Your task to perform on an android device: turn on the 24-hour format for clock Image 0: 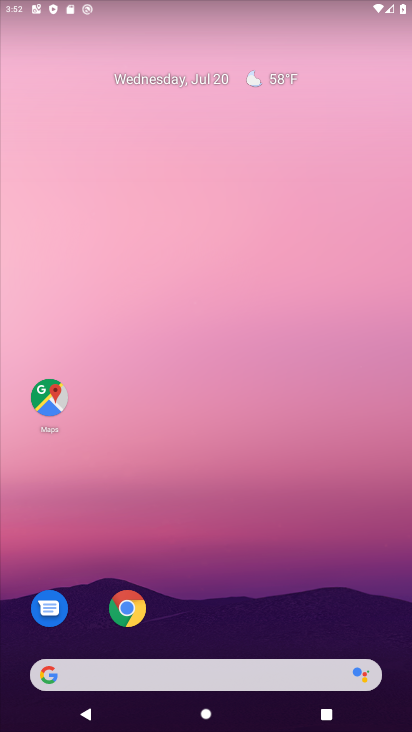
Step 0: drag from (279, 640) to (269, 204)
Your task to perform on an android device: turn on the 24-hour format for clock Image 1: 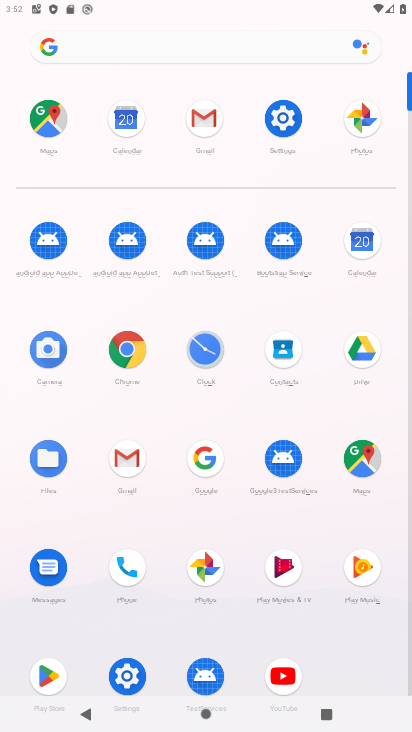
Step 1: click (301, 134)
Your task to perform on an android device: turn on the 24-hour format for clock Image 2: 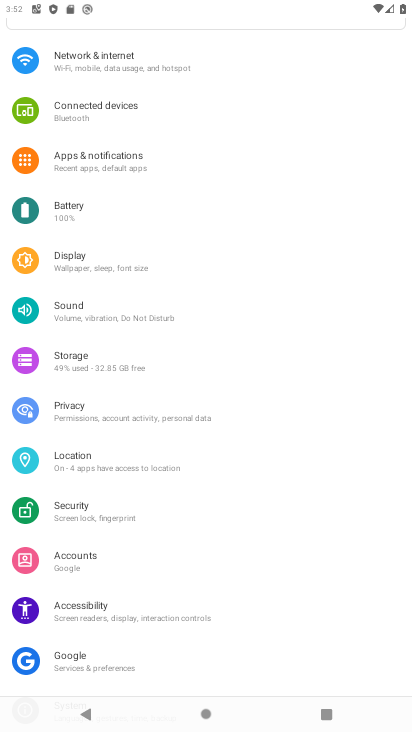
Step 2: press back button
Your task to perform on an android device: turn on the 24-hour format for clock Image 3: 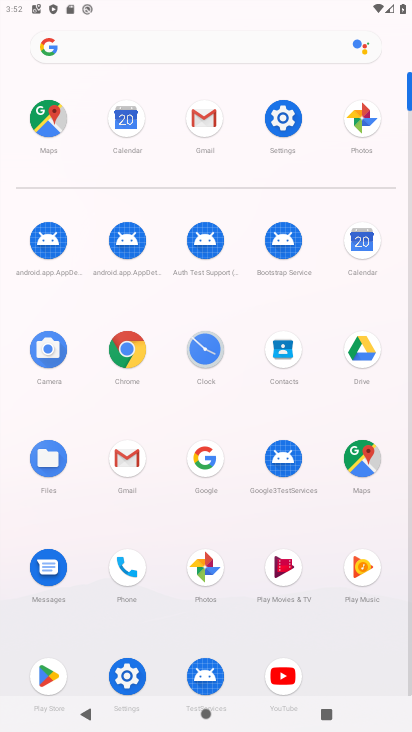
Step 3: click (204, 368)
Your task to perform on an android device: turn on the 24-hour format for clock Image 4: 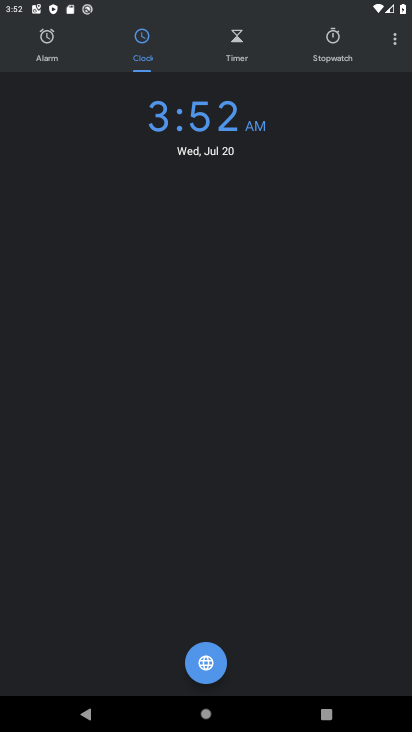
Step 4: click (398, 35)
Your task to perform on an android device: turn on the 24-hour format for clock Image 5: 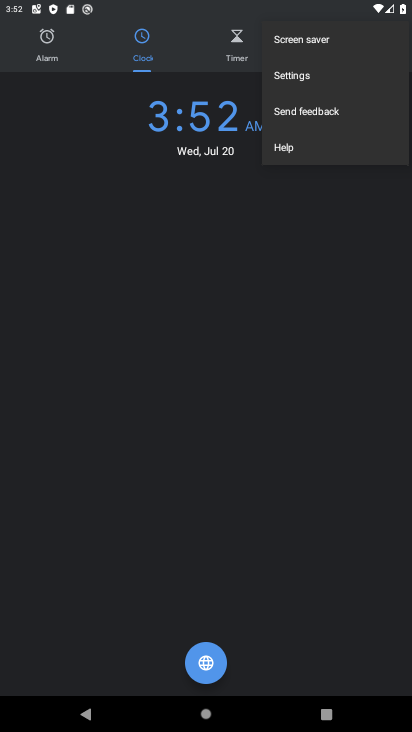
Step 5: click (300, 82)
Your task to perform on an android device: turn on the 24-hour format for clock Image 6: 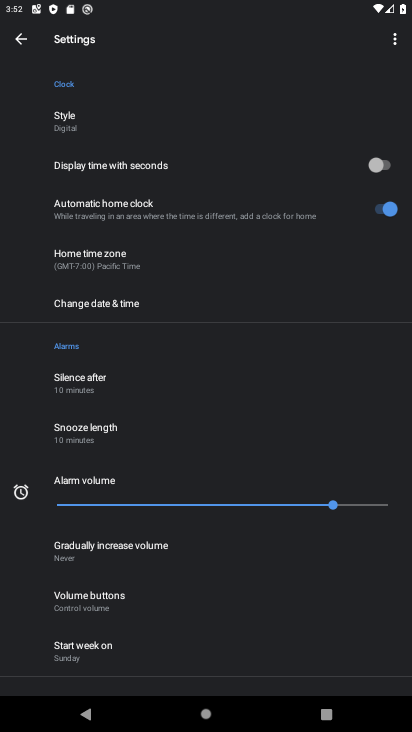
Step 6: click (142, 300)
Your task to perform on an android device: turn on the 24-hour format for clock Image 7: 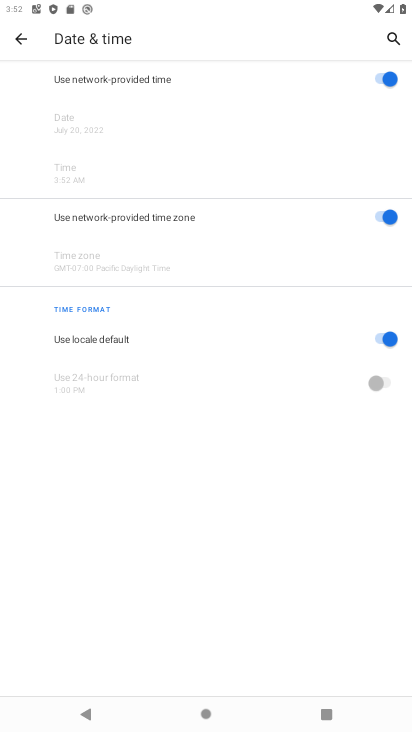
Step 7: click (372, 378)
Your task to perform on an android device: turn on the 24-hour format for clock Image 8: 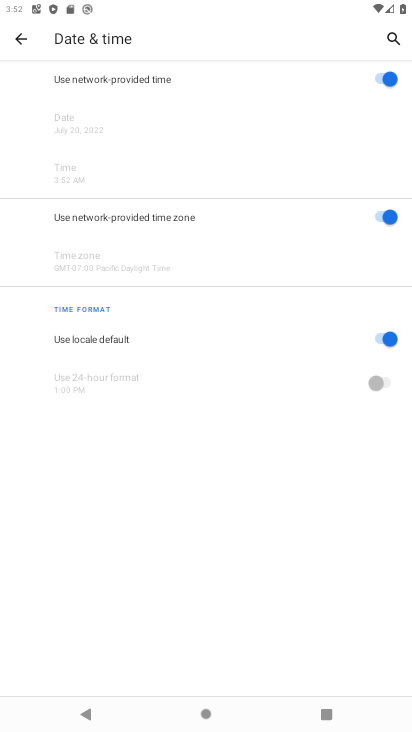
Step 8: click (395, 345)
Your task to perform on an android device: turn on the 24-hour format for clock Image 9: 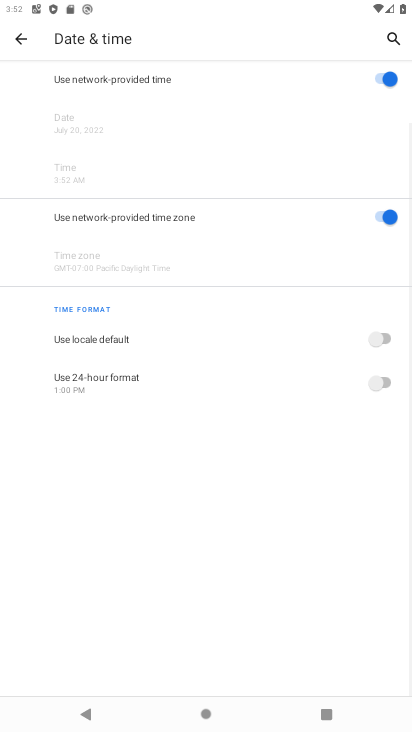
Step 9: click (385, 384)
Your task to perform on an android device: turn on the 24-hour format for clock Image 10: 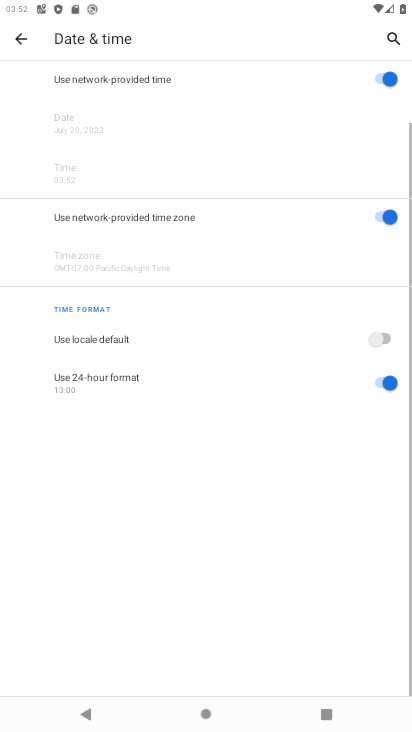
Step 10: task complete